Your task to perform on an android device: open a new tab in the chrome app Image 0: 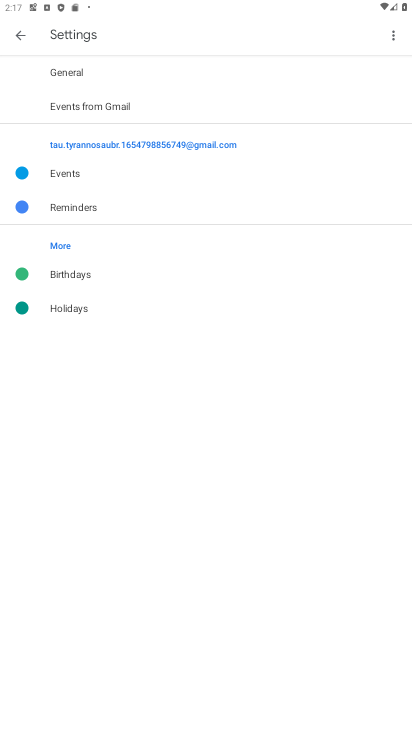
Step 0: press home button
Your task to perform on an android device: open a new tab in the chrome app Image 1: 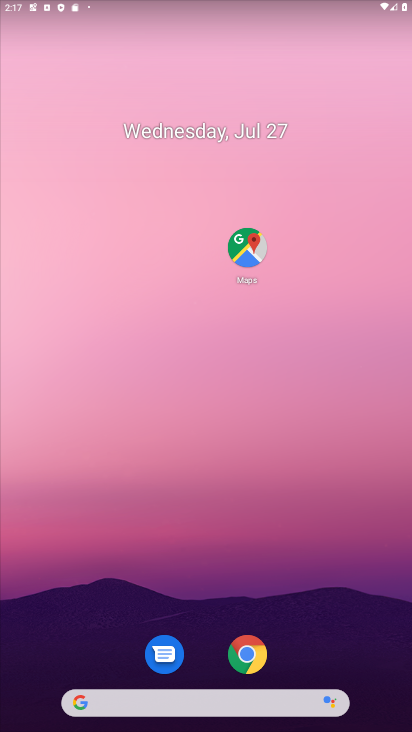
Step 1: click (252, 660)
Your task to perform on an android device: open a new tab in the chrome app Image 2: 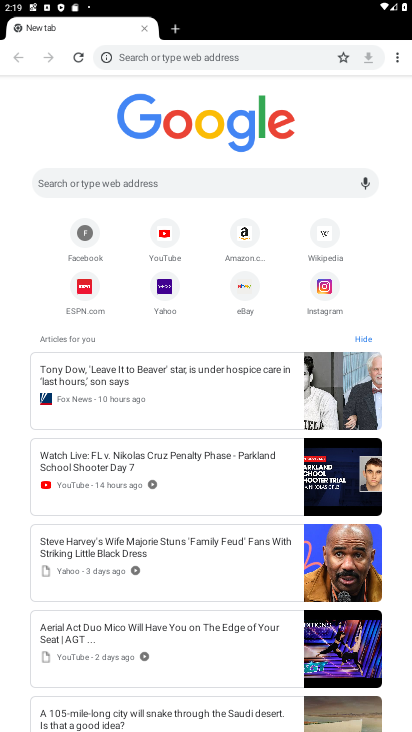
Step 2: click (170, 31)
Your task to perform on an android device: open a new tab in the chrome app Image 3: 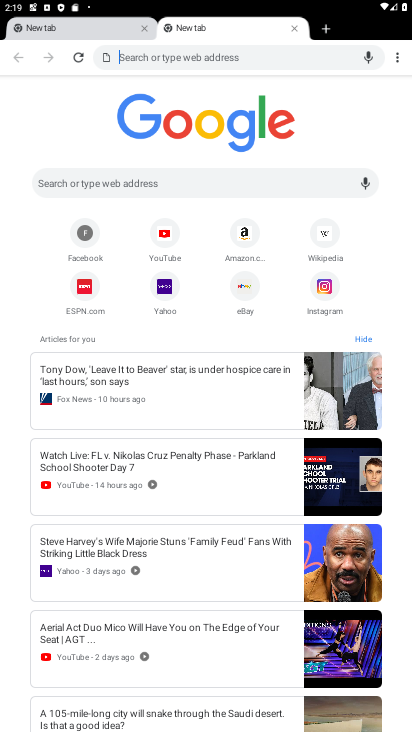
Step 3: task complete